Your task to perform on an android device: Set the phone to "Do not disturb". Image 0: 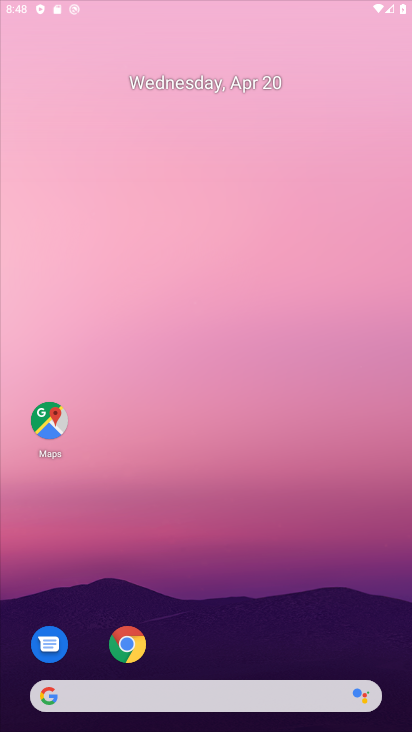
Step 0: click (219, 104)
Your task to perform on an android device: Set the phone to "Do not disturb". Image 1: 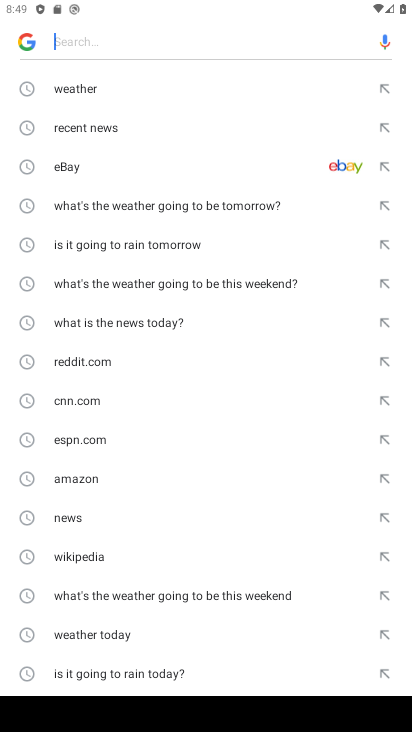
Step 1: press home button
Your task to perform on an android device: Set the phone to "Do not disturb". Image 2: 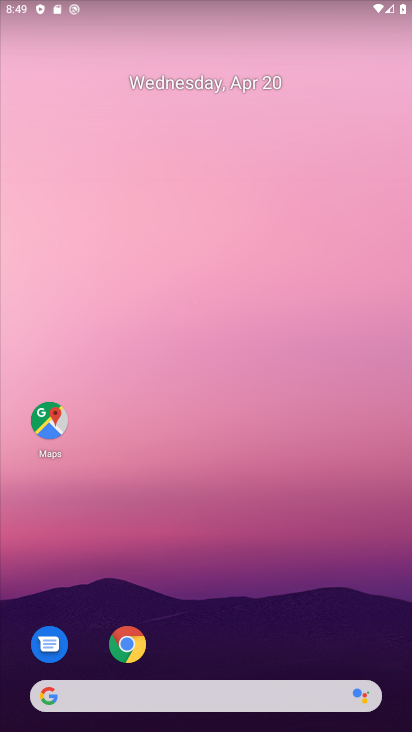
Step 2: drag from (179, 4) to (236, 470)
Your task to perform on an android device: Set the phone to "Do not disturb". Image 3: 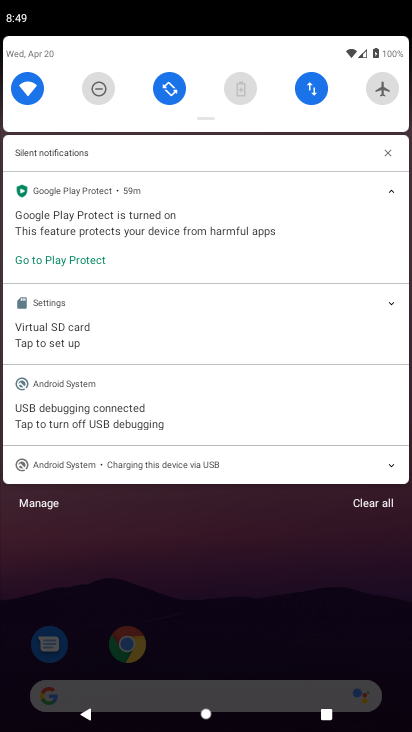
Step 3: click (94, 88)
Your task to perform on an android device: Set the phone to "Do not disturb". Image 4: 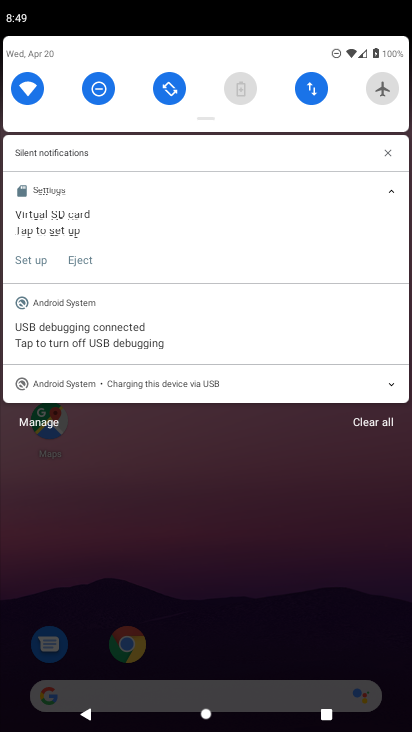
Step 4: task complete